Your task to perform on an android device: Open settings on Google Maps Image 0: 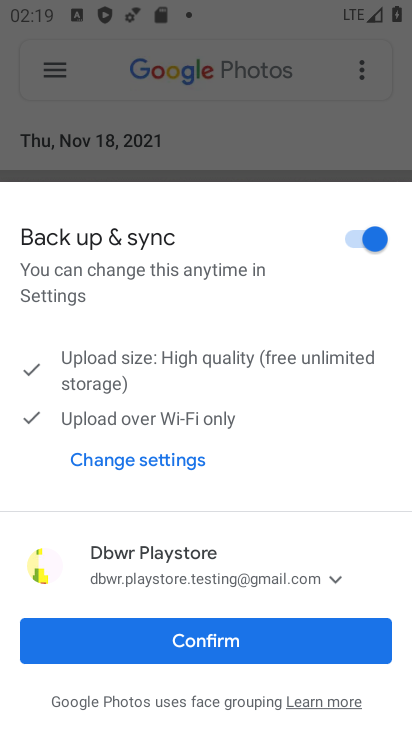
Step 0: click (295, 641)
Your task to perform on an android device: Open settings on Google Maps Image 1: 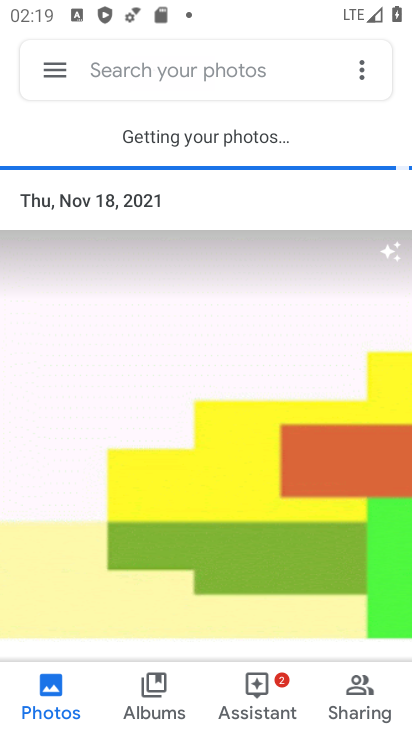
Step 1: press home button
Your task to perform on an android device: Open settings on Google Maps Image 2: 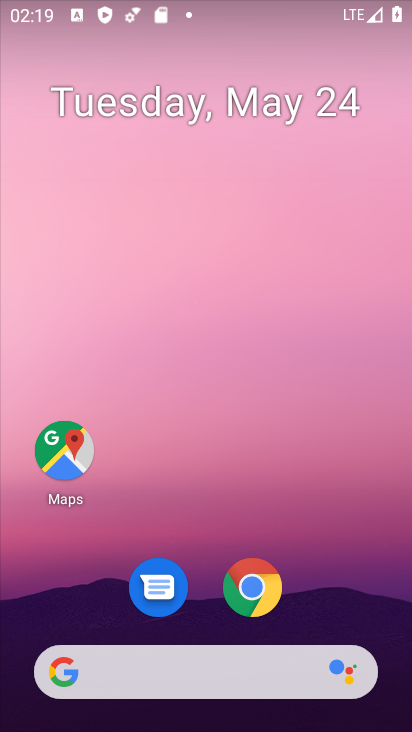
Step 2: click (55, 449)
Your task to perform on an android device: Open settings on Google Maps Image 3: 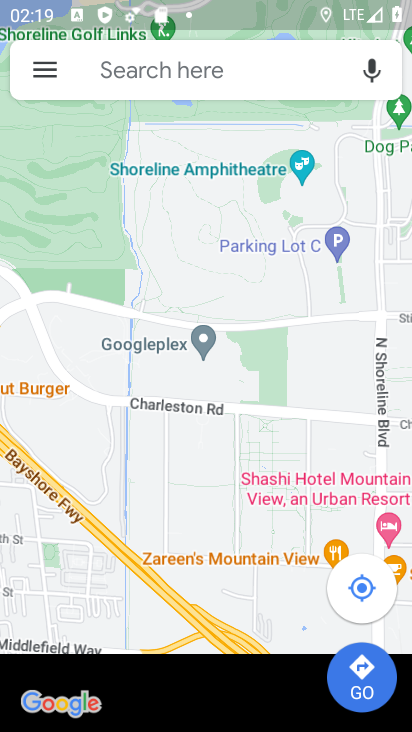
Step 3: click (47, 65)
Your task to perform on an android device: Open settings on Google Maps Image 4: 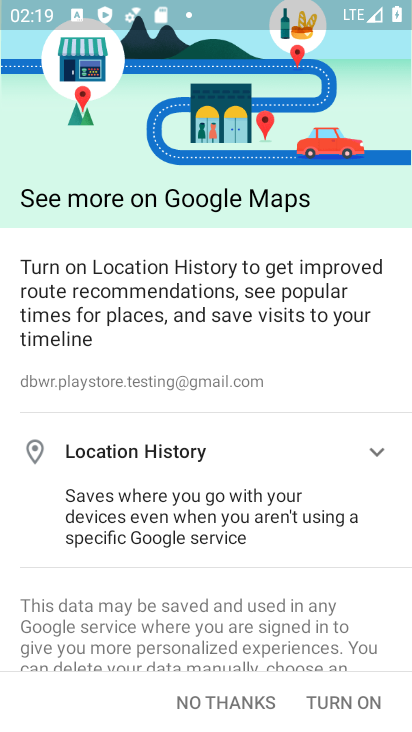
Step 4: click (238, 712)
Your task to perform on an android device: Open settings on Google Maps Image 5: 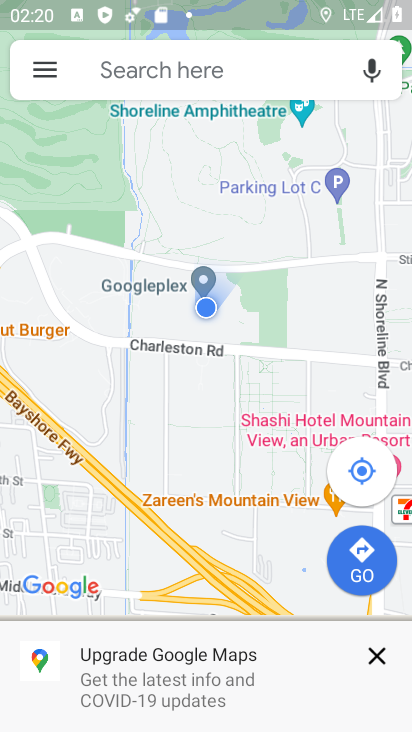
Step 5: click (48, 67)
Your task to perform on an android device: Open settings on Google Maps Image 6: 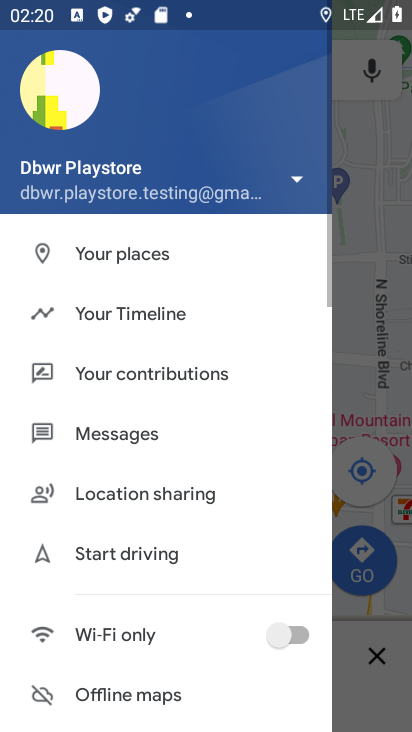
Step 6: drag from (164, 556) to (175, 39)
Your task to perform on an android device: Open settings on Google Maps Image 7: 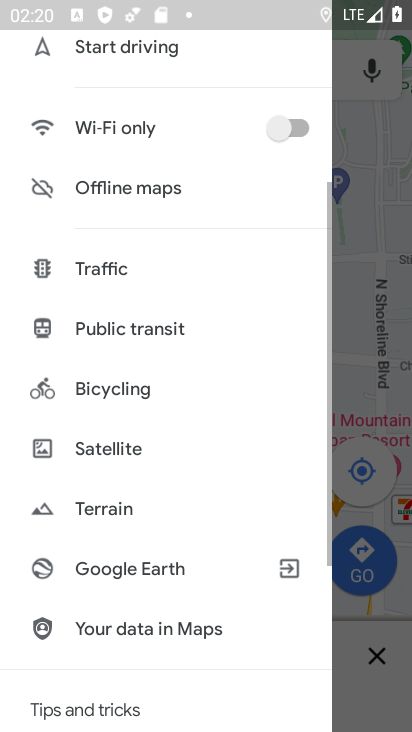
Step 7: drag from (133, 615) to (108, 74)
Your task to perform on an android device: Open settings on Google Maps Image 8: 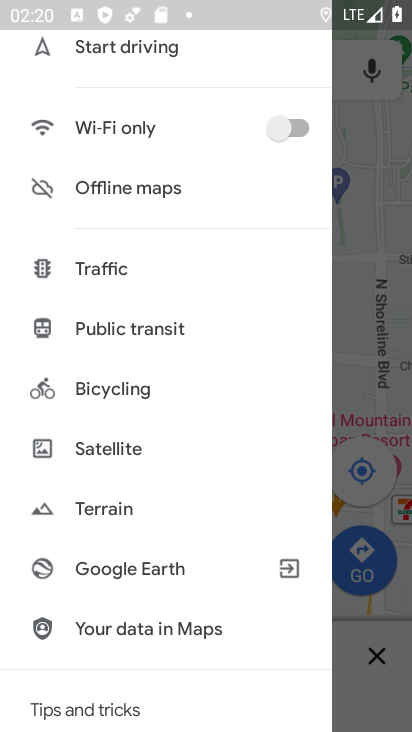
Step 8: drag from (109, 667) to (109, 14)
Your task to perform on an android device: Open settings on Google Maps Image 9: 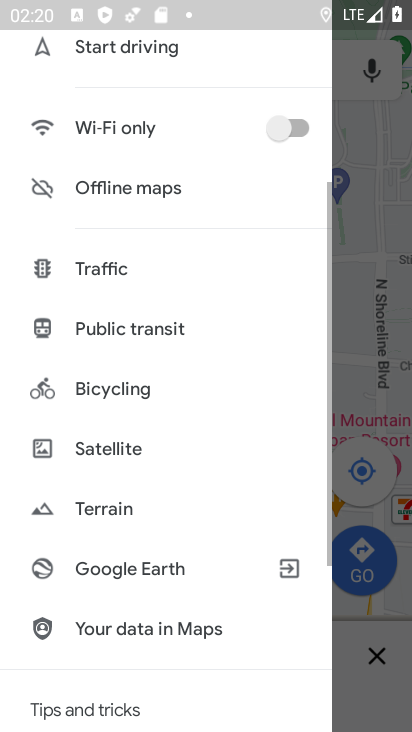
Step 9: drag from (123, 658) to (121, 13)
Your task to perform on an android device: Open settings on Google Maps Image 10: 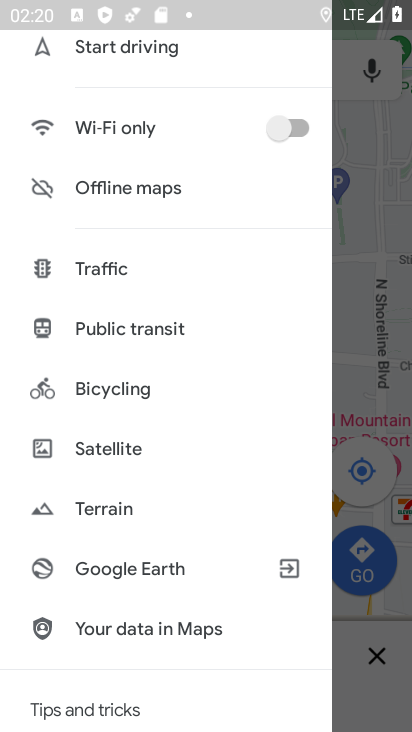
Step 10: drag from (123, 614) to (169, 10)
Your task to perform on an android device: Open settings on Google Maps Image 11: 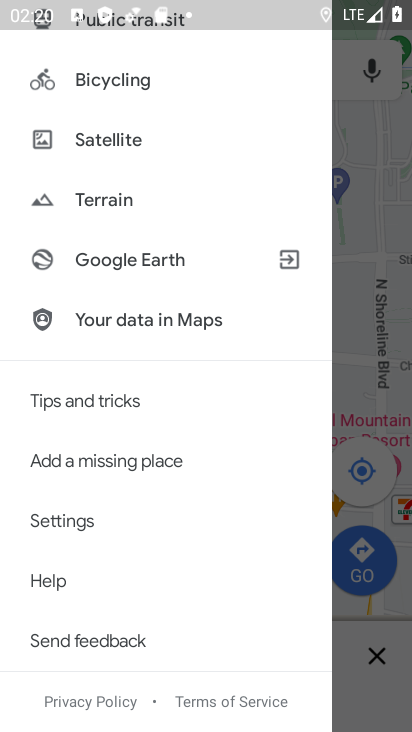
Step 11: click (76, 516)
Your task to perform on an android device: Open settings on Google Maps Image 12: 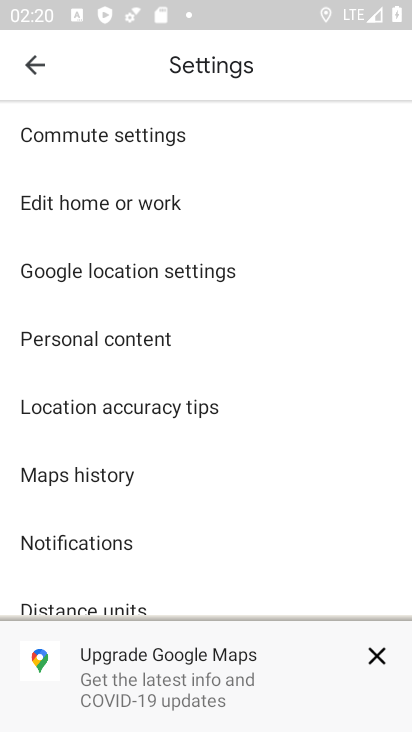
Step 12: task complete